Your task to perform on an android device: Go to eBay Image 0: 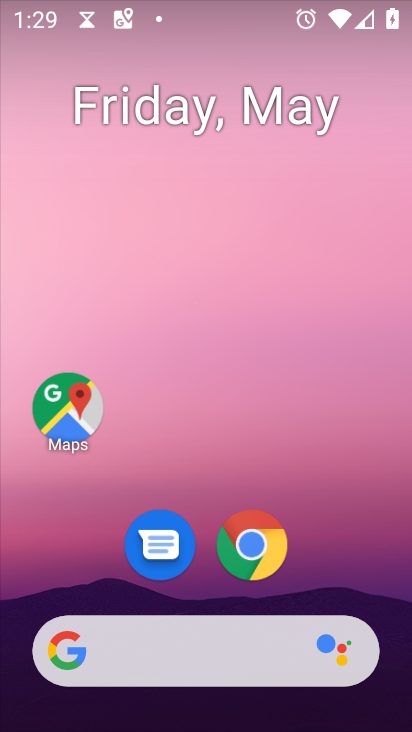
Step 0: click (257, 535)
Your task to perform on an android device: Go to eBay Image 1: 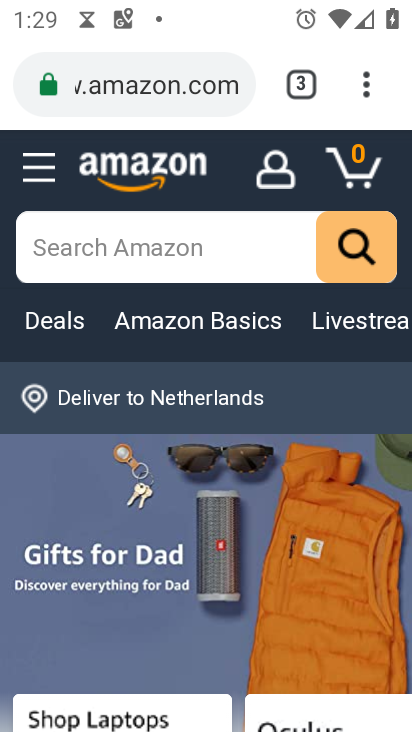
Step 1: click (296, 86)
Your task to perform on an android device: Go to eBay Image 2: 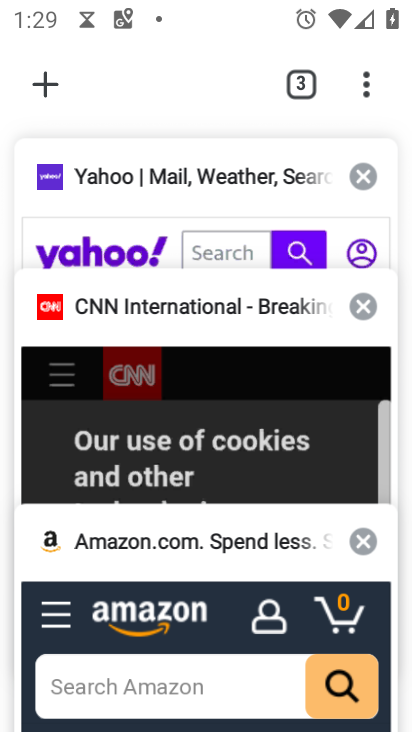
Step 2: click (37, 88)
Your task to perform on an android device: Go to eBay Image 3: 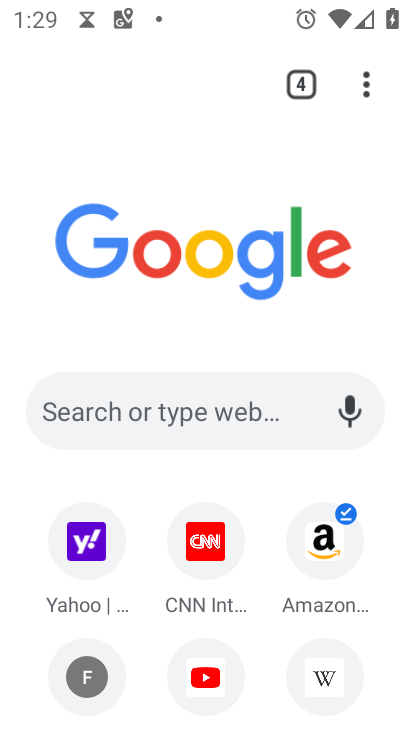
Step 3: click (196, 422)
Your task to perform on an android device: Go to eBay Image 4: 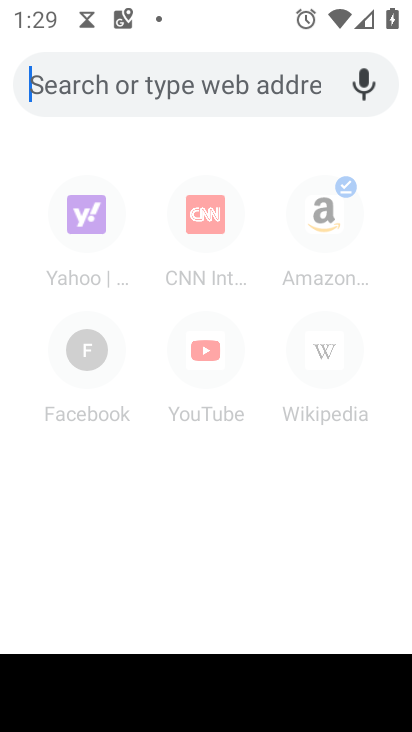
Step 4: type "ebay"
Your task to perform on an android device: Go to eBay Image 5: 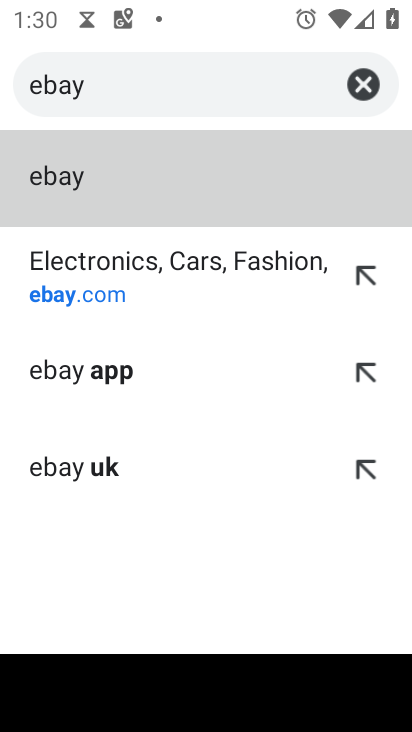
Step 5: click (174, 279)
Your task to perform on an android device: Go to eBay Image 6: 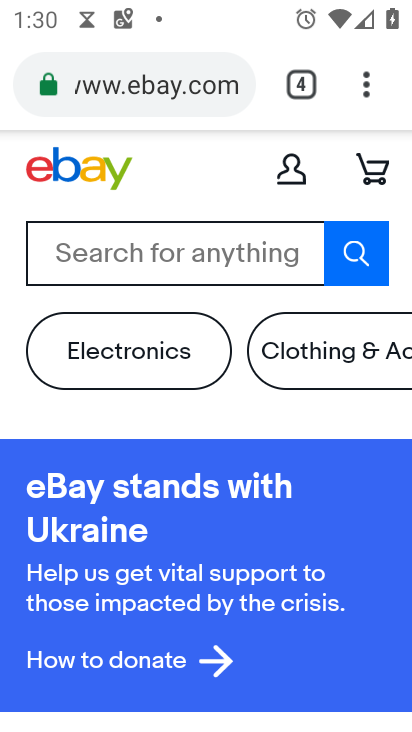
Step 6: task complete